Your task to perform on an android device: make emails show in primary in the gmail app Image 0: 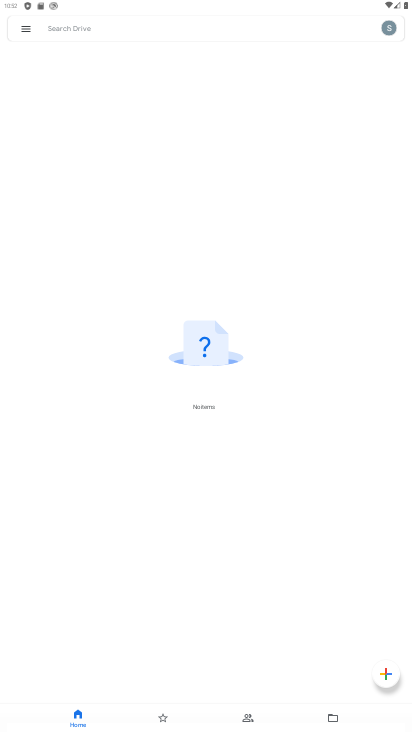
Step 0: press home button
Your task to perform on an android device: make emails show in primary in the gmail app Image 1: 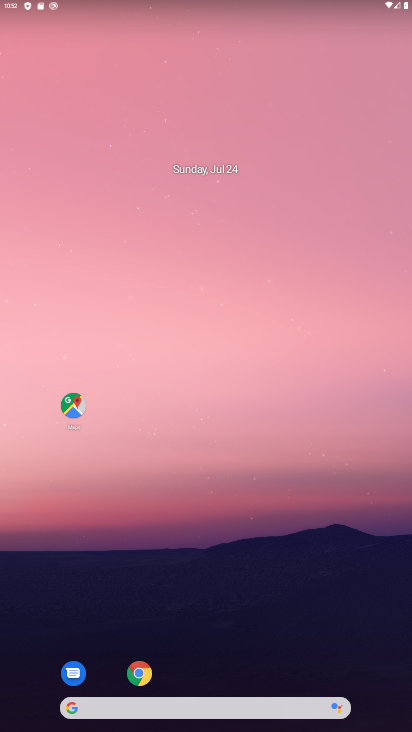
Step 1: drag from (190, 664) to (218, 104)
Your task to perform on an android device: make emails show in primary in the gmail app Image 2: 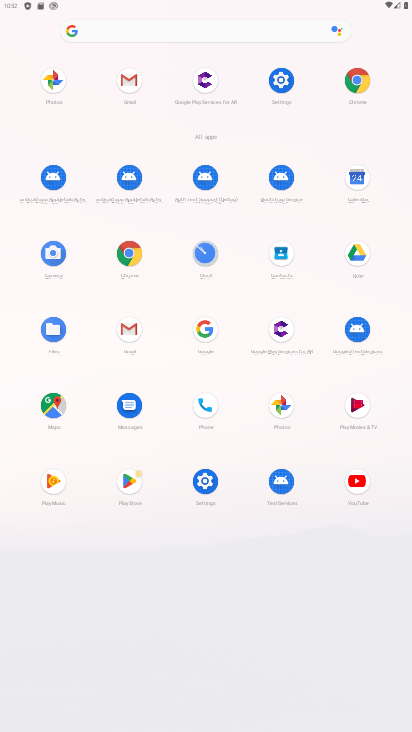
Step 2: click (129, 82)
Your task to perform on an android device: make emails show in primary in the gmail app Image 3: 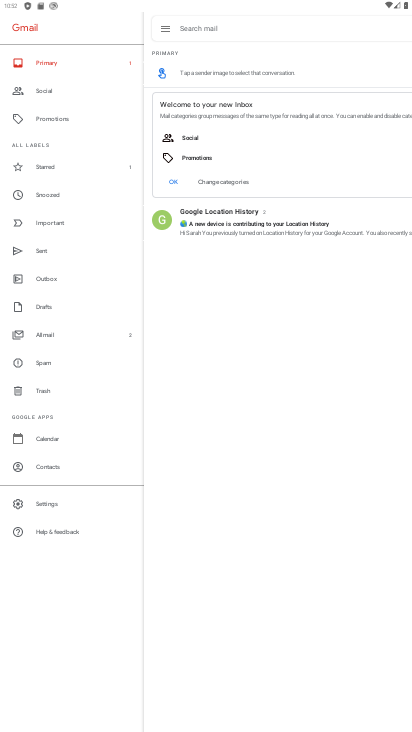
Step 3: click (52, 505)
Your task to perform on an android device: make emails show in primary in the gmail app Image 4: 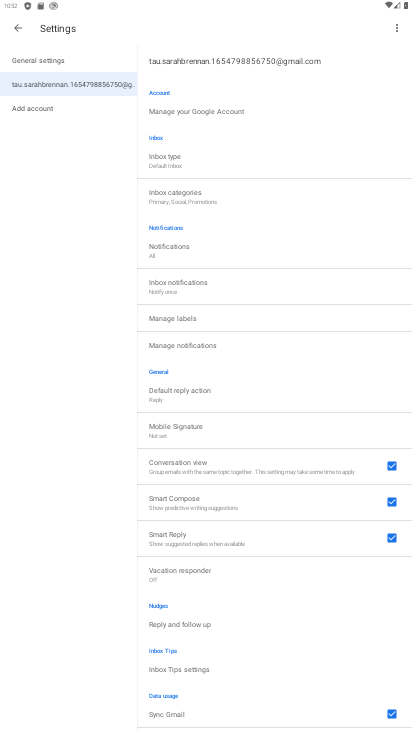
Step 4: task complete